Your task to perform on an android device: Open the calendar and show me this week's events? Image 0: 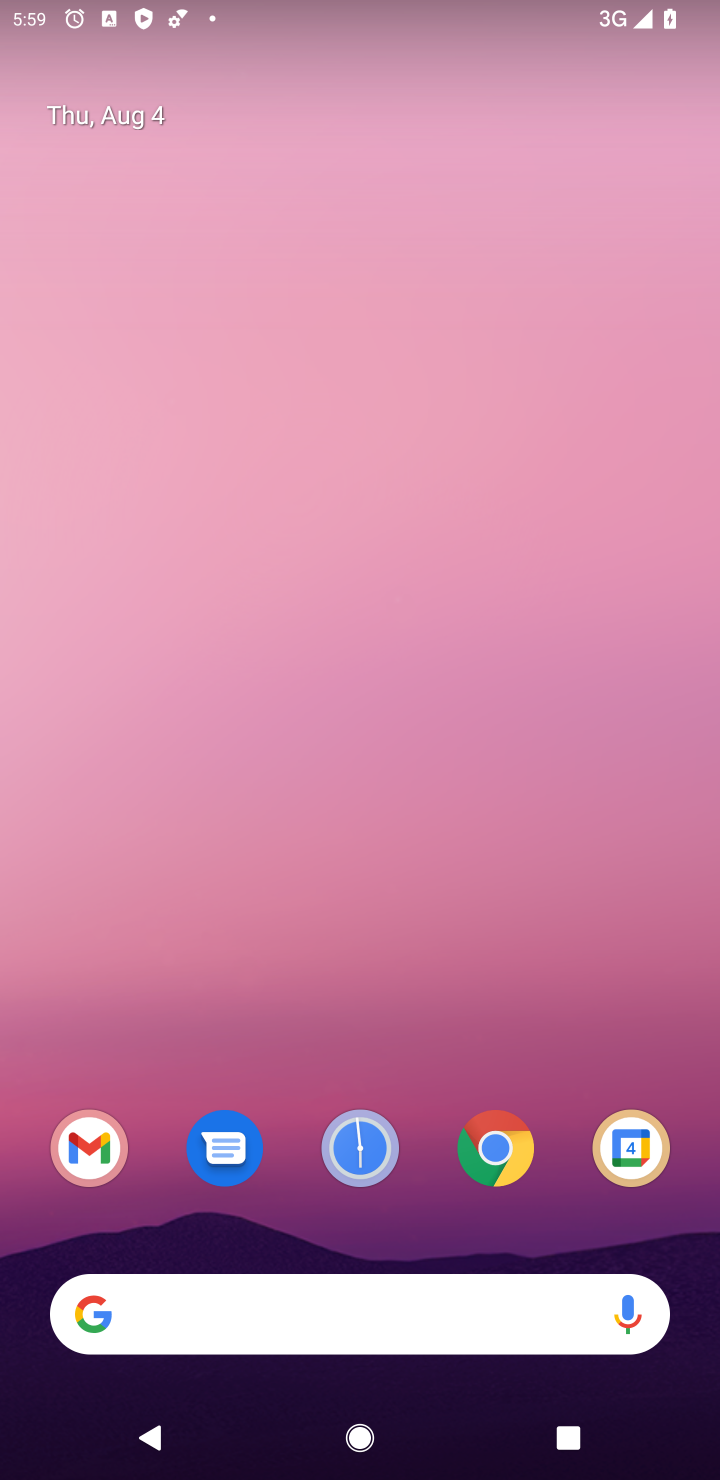
Step 0: click (624, 1147)
Your task to perform on an android device: Open the calendar and show me this week's events? Image 1: 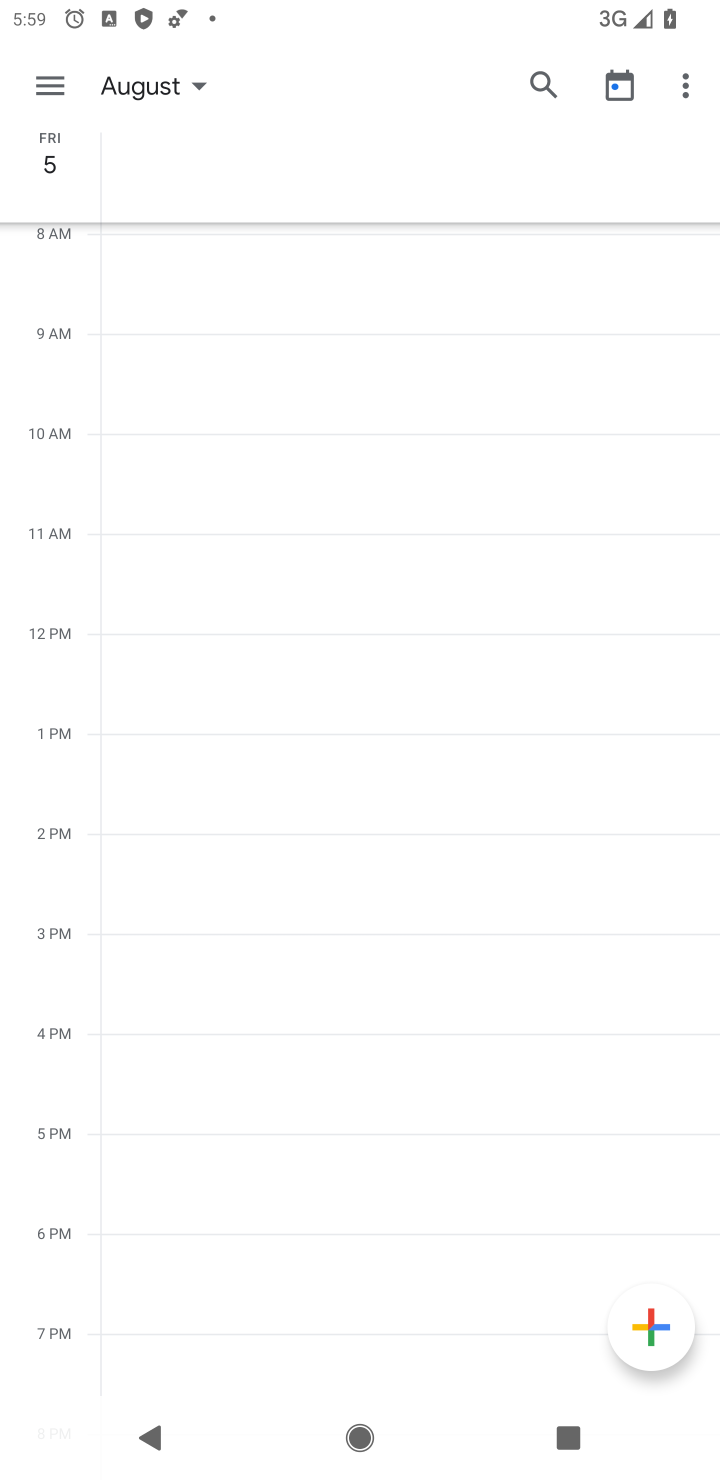
Step 1: click (53, 75)
Your task to perform on an android device: Open the calendar and show me this week's events? Image 2: 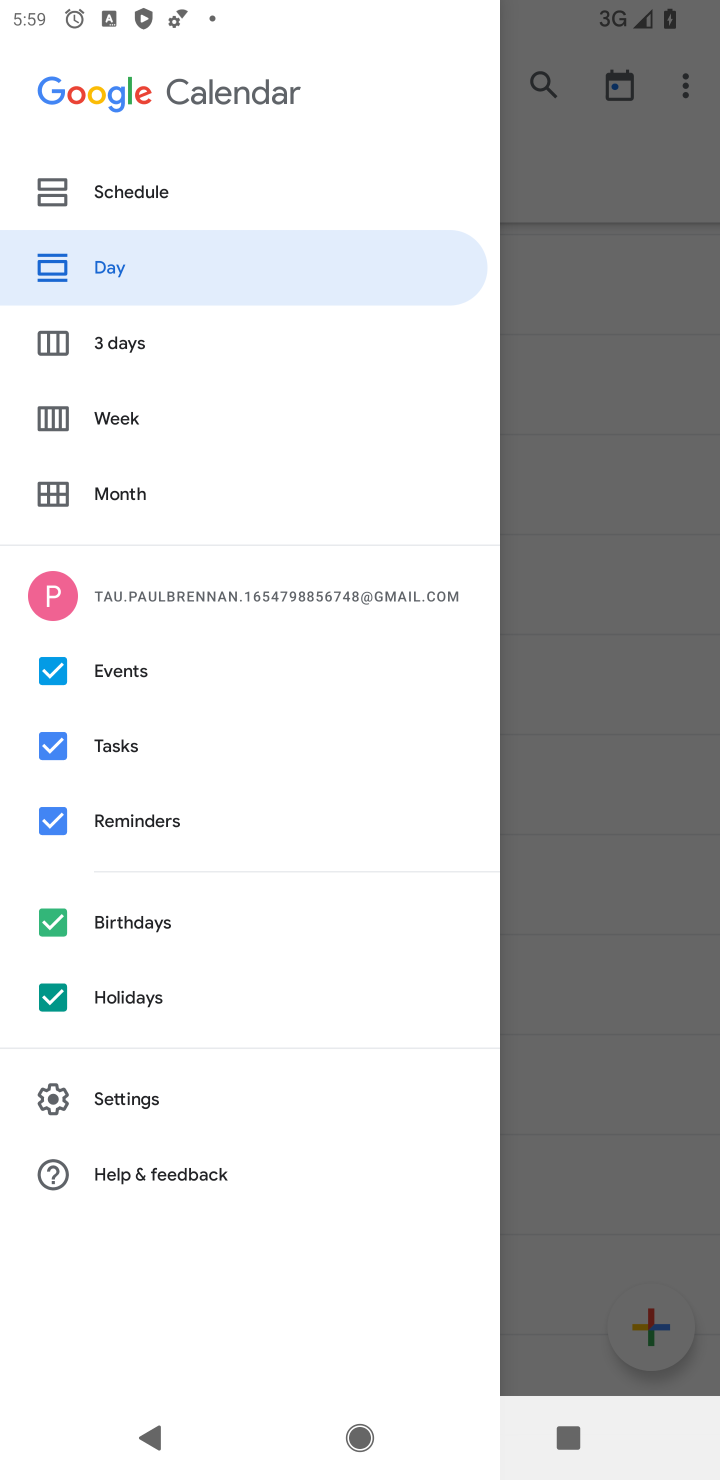
Step 2: click (114, 428)
Your task to perform on an android device: Open the calendar and show me this week's events? Image 3: 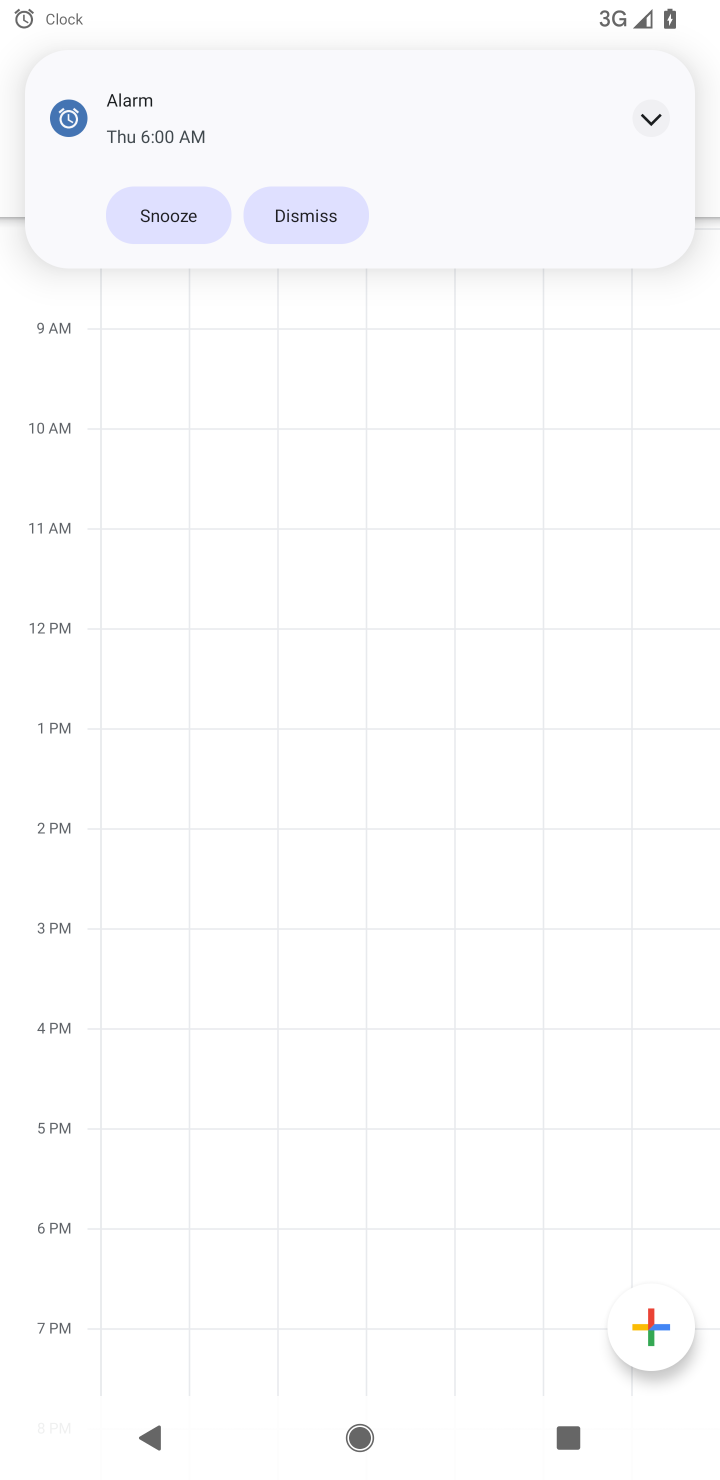
Step 3: click (283, 210)
Your task to perform on an android device: Open the calendar and show me this week's events? Image 4: 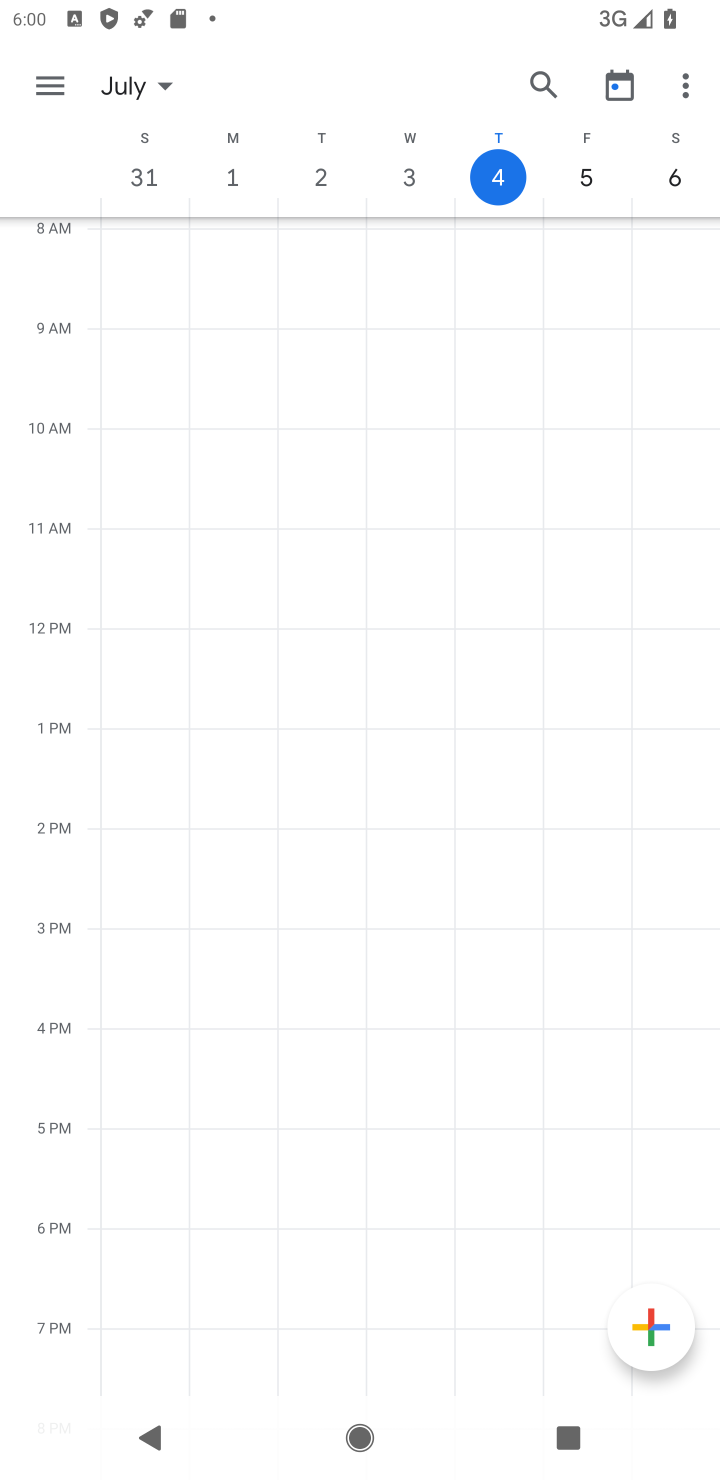
Step 4: task complete